Your task to perform on an android device: Go to Android settings Image 0: 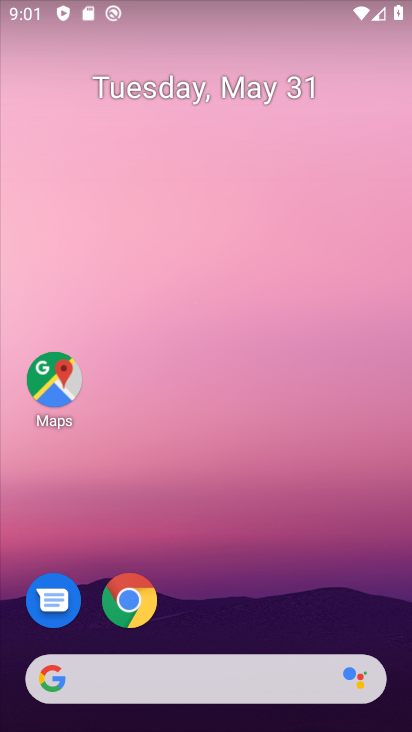
Step 0: drag from (240, 708) to (222, 350)
Your task to perform on an android device: Go to Android settings Image 1: 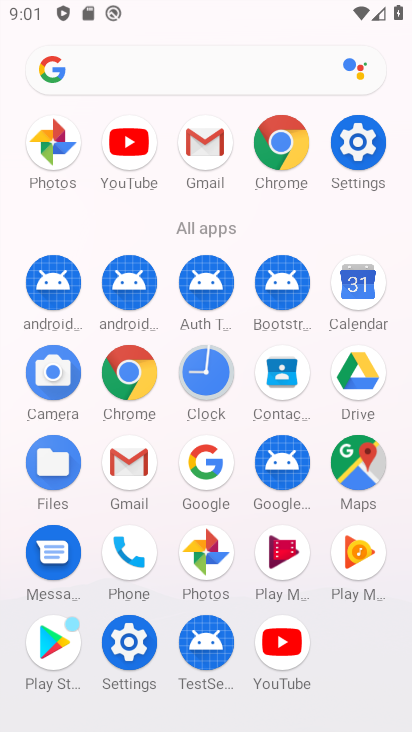
Step 1: click (368, 158)
Your task to perform on an android device: Go to Android settings Image 2: 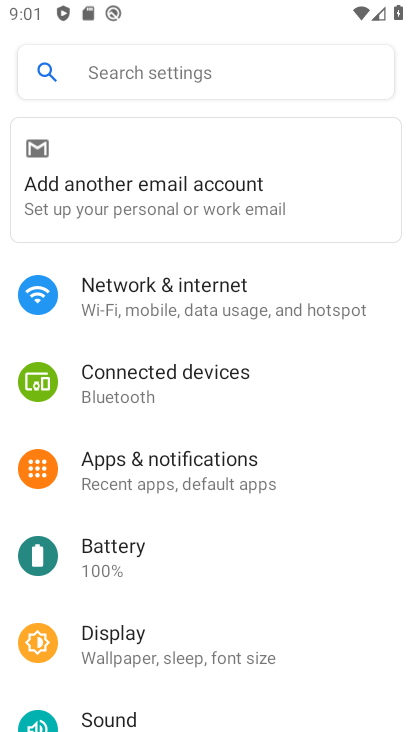
Step 2: click (170, 62)
Your task to perform on an android device: Go to Android settings Image 3: 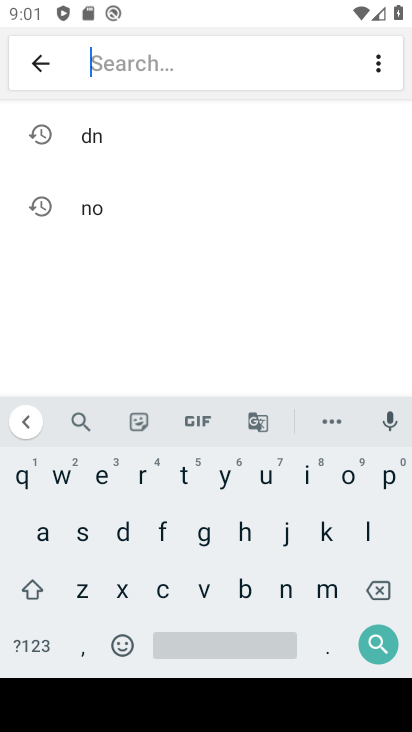
Step 3: click (37, 526)
Your task to perform on an android device: Go to Android settings Image 4: 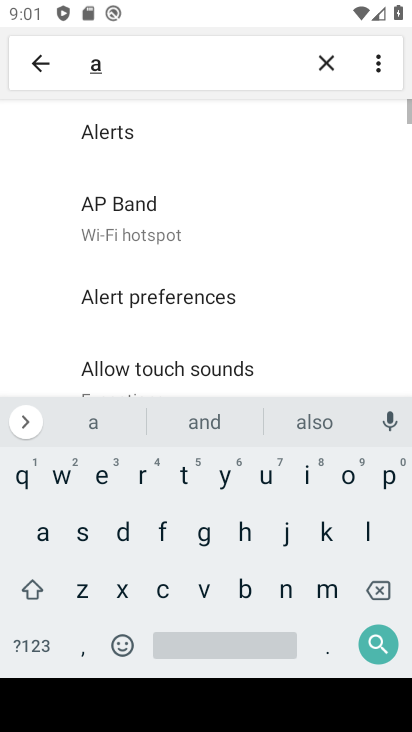
Step 4: click (289, 588)
Your task to perform on an android device: Go to Android settings Image 5: 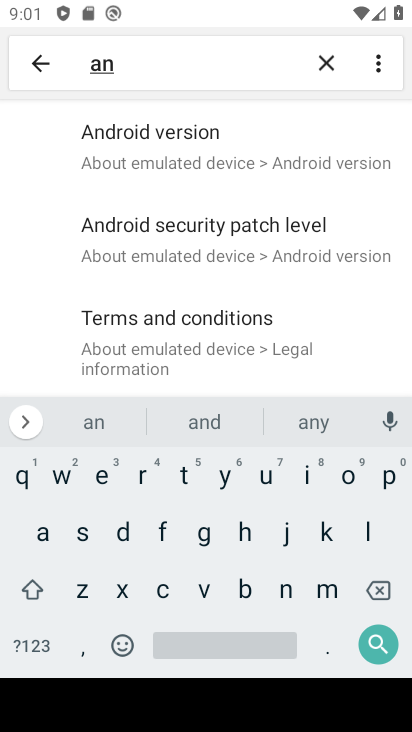
Step 5: click (215, 159)
Your task to perform on an android device: Go to Android settings Image 6: 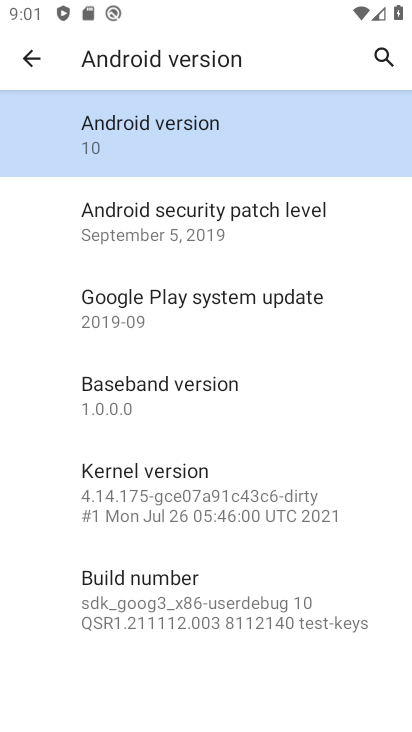
Step 6: task complete